Your task to perform on an android device: turn notification dots off Image 0: 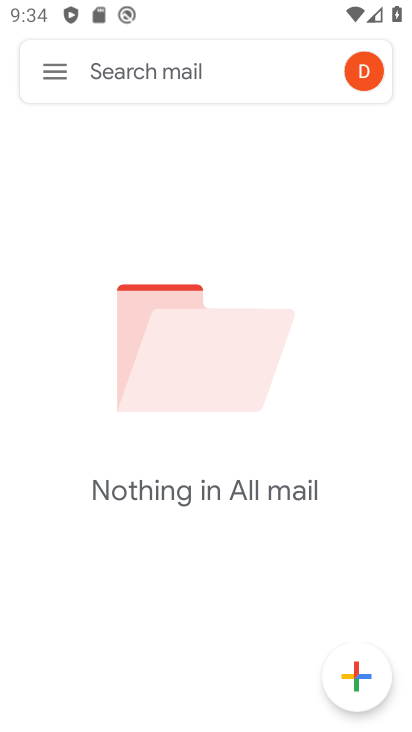
Step 0: drag from (357, 506) to (400, 0)
Your task to perform on an android device: turn notification dots off Image 1: 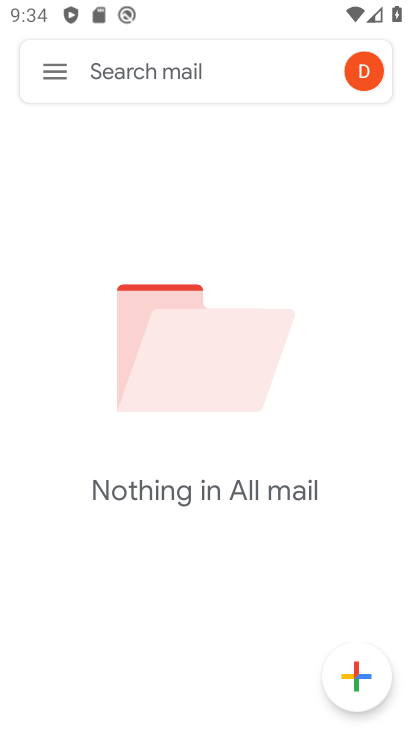
Step 1: press home button
Your task to perform on an android device: turn notification dots off Image 2: 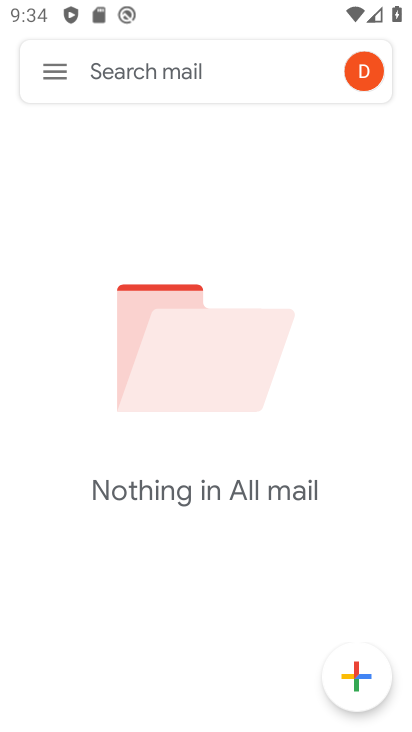
Step 2: drag from (400, 0) to (394, 542)
Your task to perform on an android device: turn notification dots off Image 3: 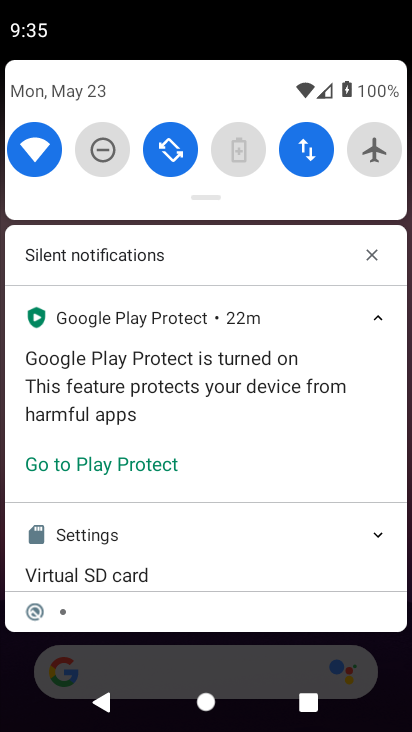
Step 3: press home button
Your task to perform on an android device: turn notification dots off Image 4: 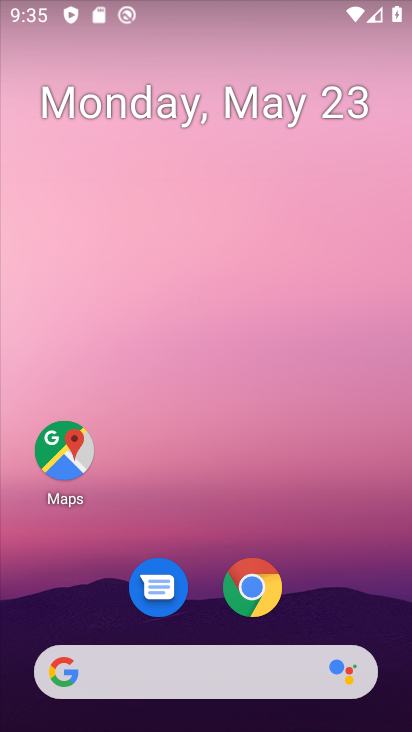
Step 4: drag from (359, 470) to (248, 105)
Your task to perform on an android device: turn notification dots off Image 5: 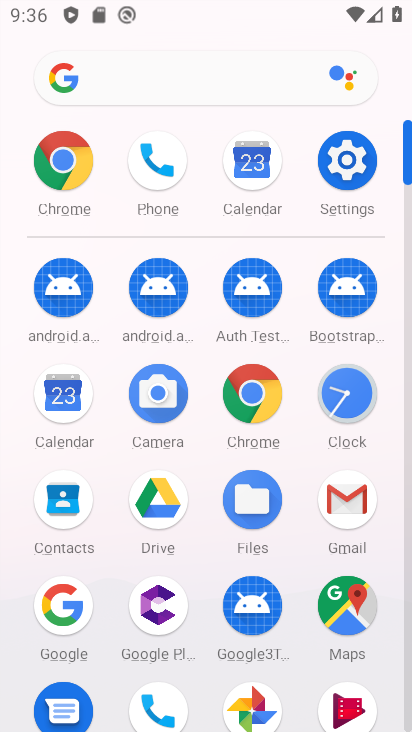
Step 5: click (347, 182)
Your task to perform on an android device: turn notification dots off Image 6: 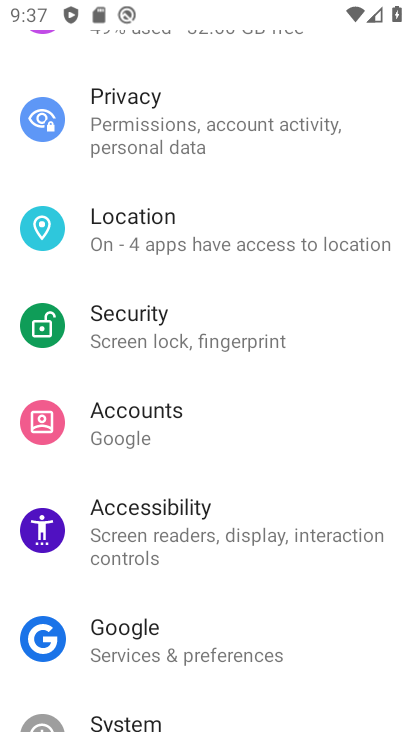
Step 6: drag from (212, 634) to (241, 212)
Your task to perform on an android device: turn notification dots off Image 7: 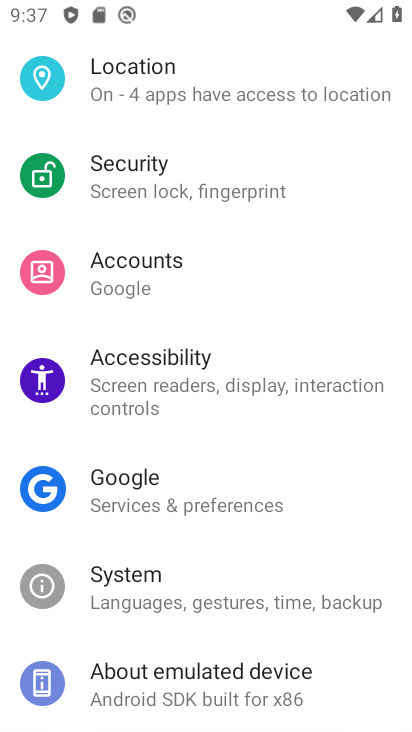
Step 7: drag from (224, 363) to (236, 598)
Your task to perform on an android device: turn notification dots off Image 8: 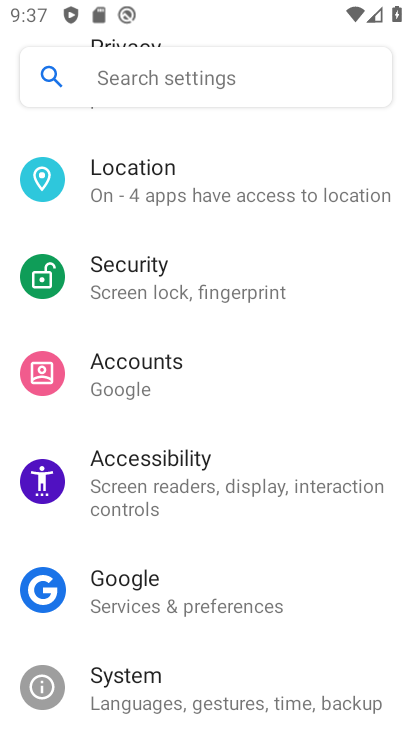
Step 8: drag from (224, 220) to (243, 589)
Your task to perform on an android device: turn notification dots off Image 9: 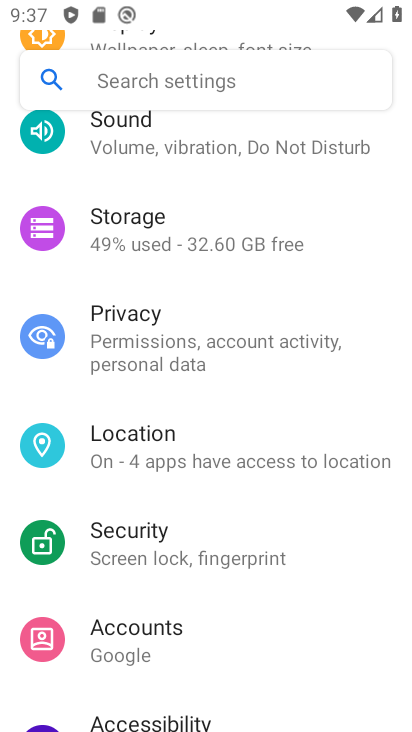
Step 9: drag from (219, 244) to (217, 673)
Your task to perform on an android device: turn notification dots off Image 10: 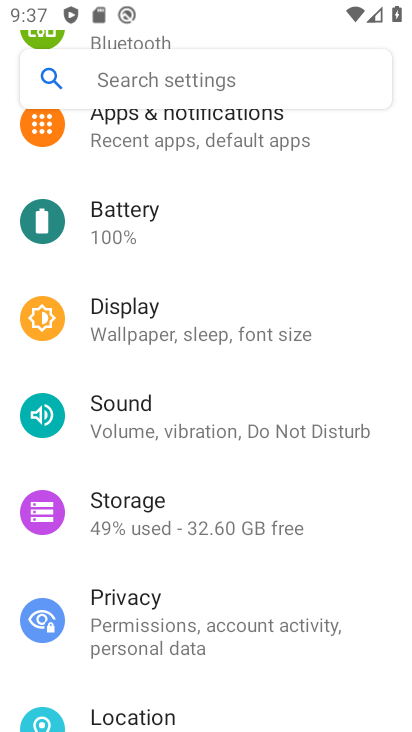
Step 10: drag from (209, 307) to (241, 602)
Your task to perform on an android device: turn notification dots off Image 11: 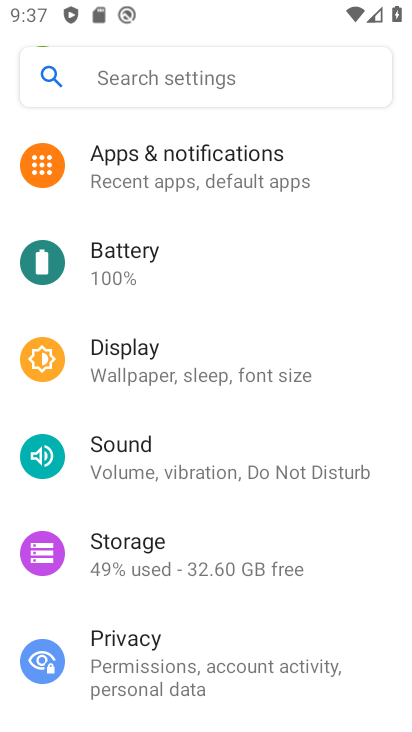
Step 11: click (219, 147)
Your task to perform on an android device: turn notification dots off Image 12: 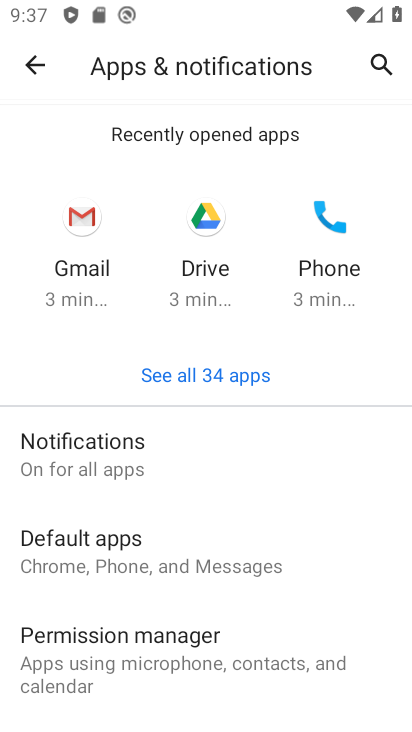
Step 12: click (79, 446)
Your task to perform on an android device: turn notification dots off Image 13: 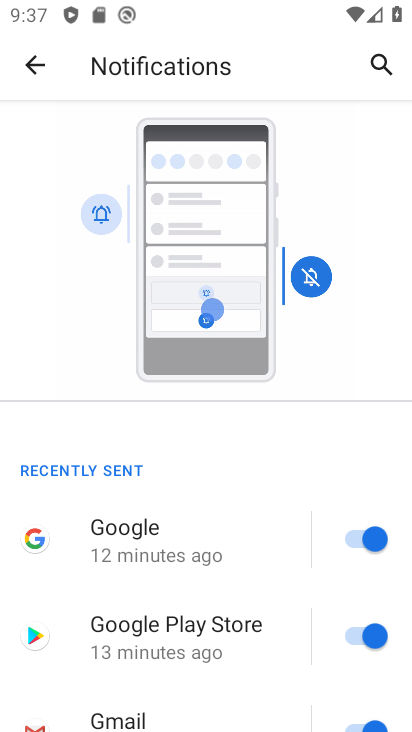
Step 13: drag from (137, 684) to (129, 393)
Your task to perform on an android device: turn notification dots off Image 14: 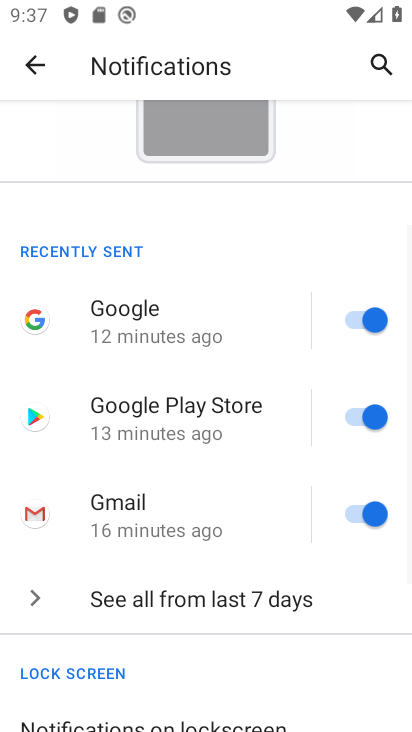
Step 14: drag from (161, 635) to (178, 318)
Your task to perform on an android device: turn notification dots off Image 15: 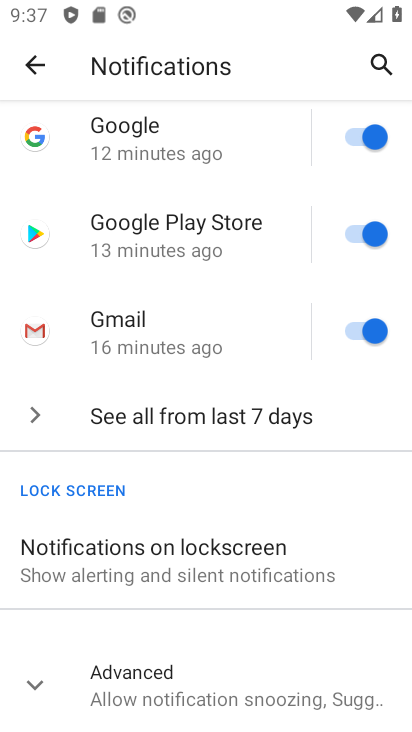
Step 15: click (169, 679)
Your task to perform on an android device: turn notification dots off Image 16: 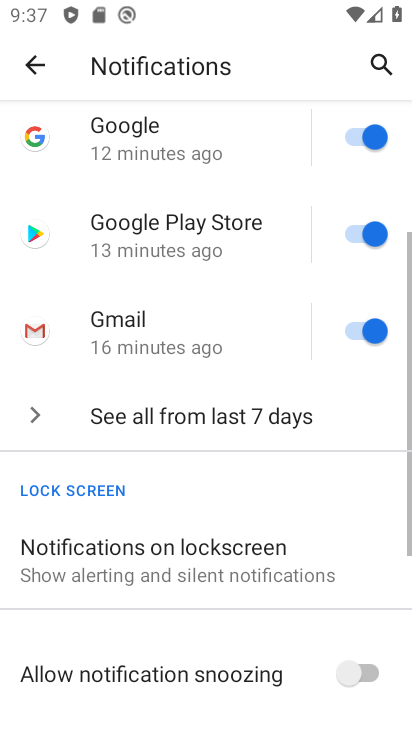
Step 16: drag from (173, 675) to (180, 381)
Your task to perform on an android device: turn notification dots off Image 17: 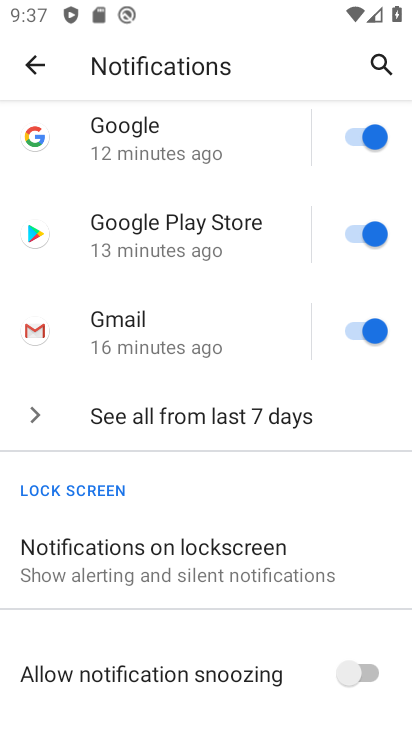
Step 17: drag from (222, 653) to (263, 333)
Your task to perform on an android device: turn notification dots off Image 18: 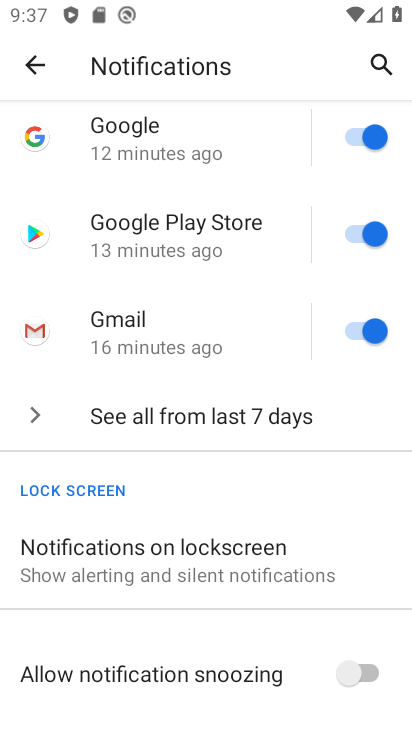
Step 18: drag from (129, 638) to (160, 289)
Your task to perform on an android device: turn notification dots off Image 19: 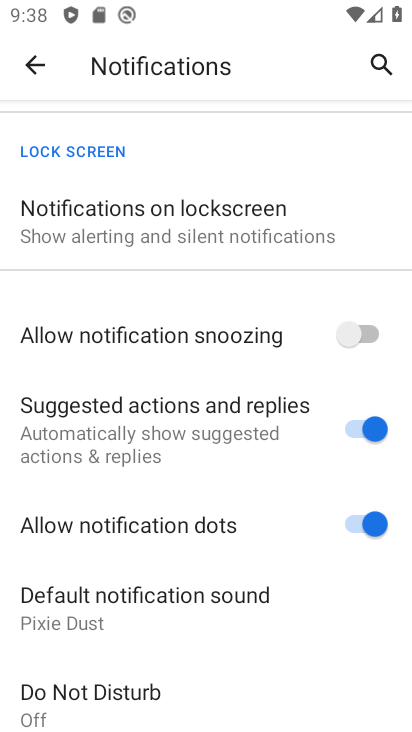
Step 19: drag from (221, 629) to (222, 304)
Your task to perform on an android device: turn notification dots off Image 20: 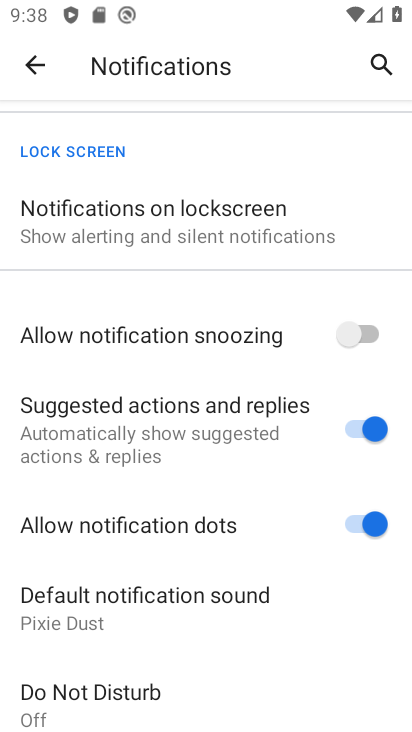
Step 20: click (363, 524)
Your task to perform on an android device: turn notification dots off Image 21: 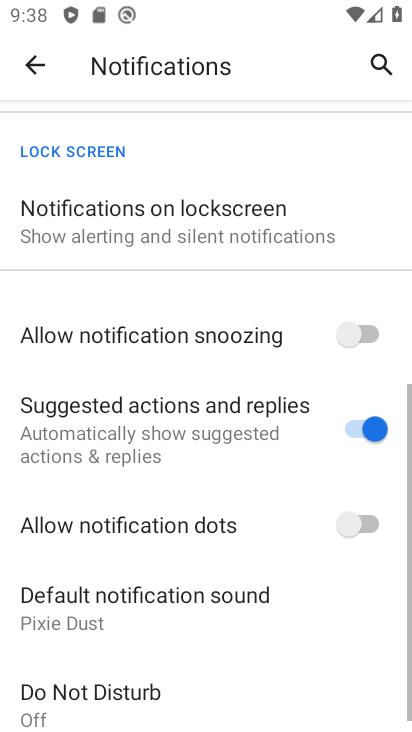
Step 21: task complete